Your task to perform on an android device: What is the recent news? Image 0: 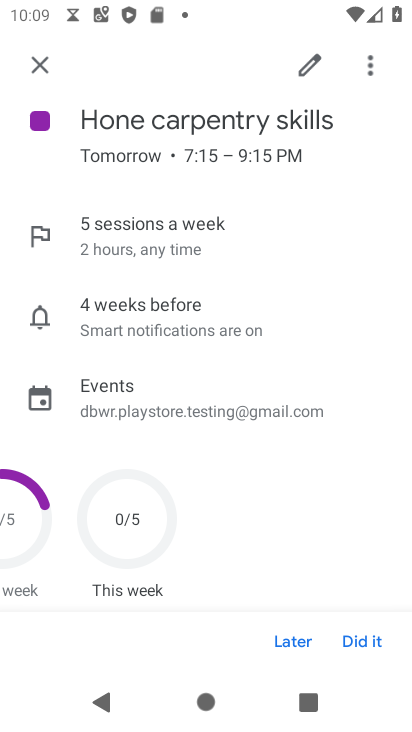
Step 0: press home button
Your task to perform on an android device: What is the recent news? Image 1: 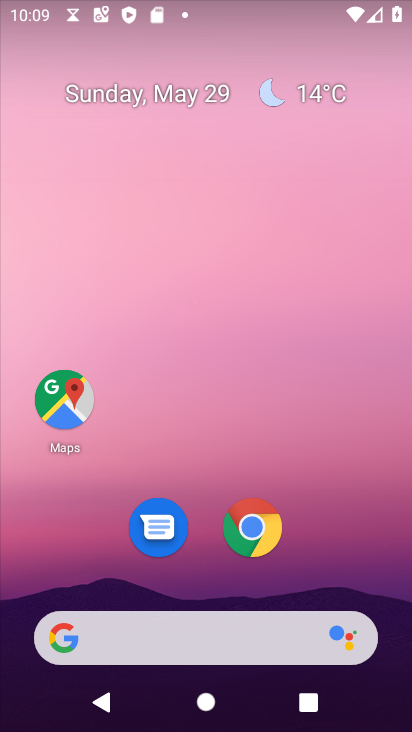
Step 1: click (72, 642)
Your task to perform on an android device: What is the recent news? Image 2: 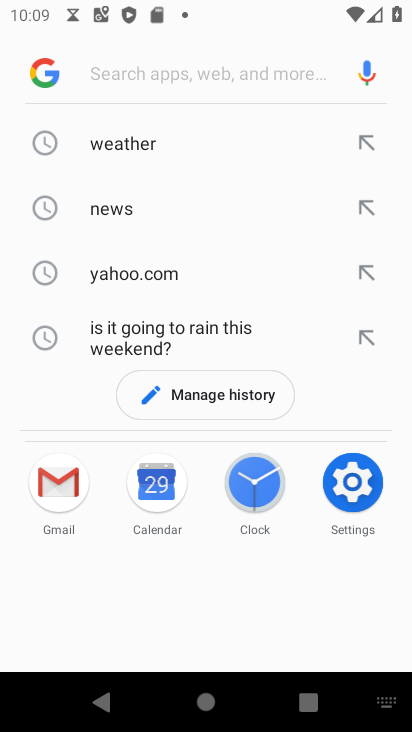
Step 2: click (121, 209)
Your task to perform on an android device: What is the recent news? Image 3: 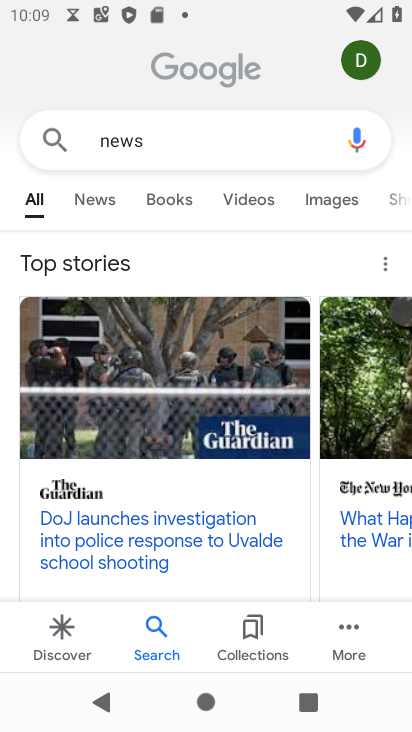
Step 3: click (104, 196)
Your task to perform on an android device: What is the recent news? Image 4: 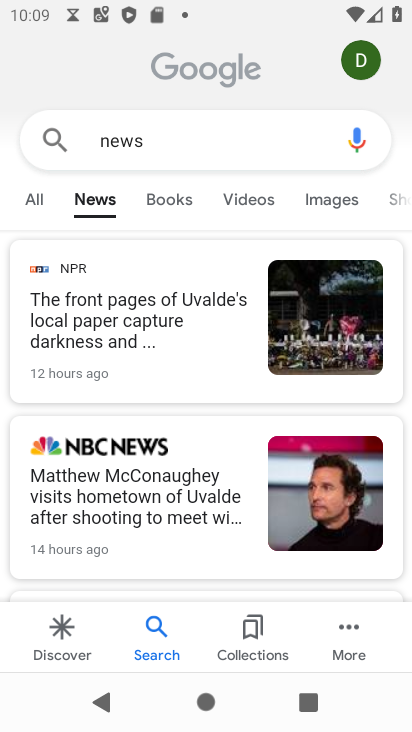
Step 4: task complete